Your task to perform on an android device: change the clock display to digital Image 0: 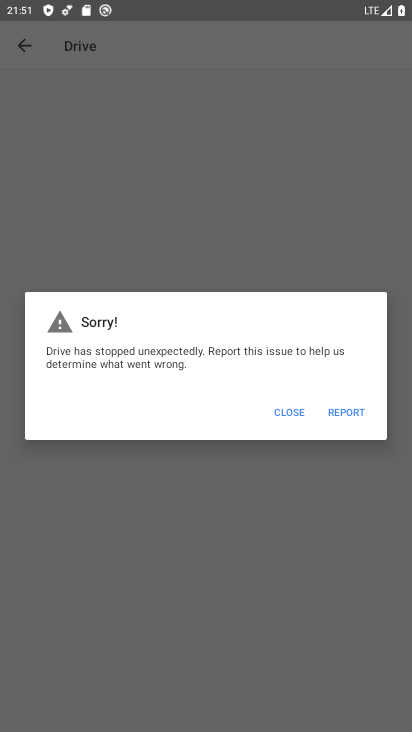
Step 0: press home button
Your task to perform on an android device: change the clock display to digital Image 1: 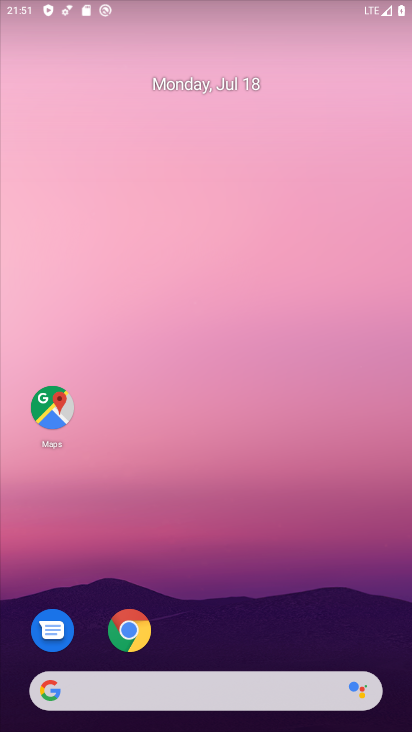
Step 1: drag from (313, 670) to (204, 196)
Your task to perform on an android device: change the clock display to digital Image 2: 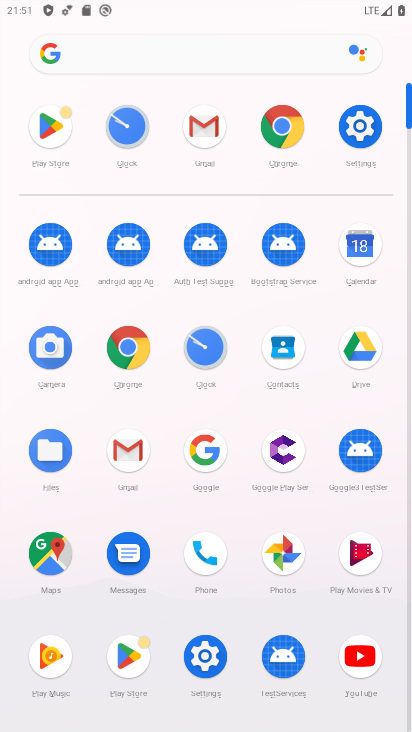
Step 2: click (213, 346)
Your task to perform on an android device: change the clock display to digital Image 3: 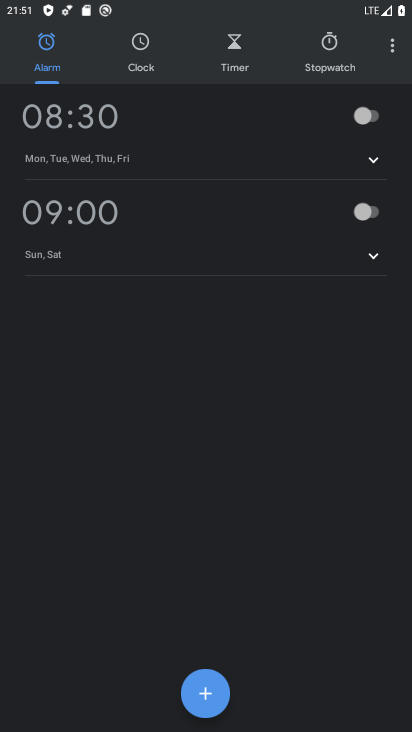
Step 3: click (398, 48)
Your task to perform on an android device: change the clock display to digital Image 4: 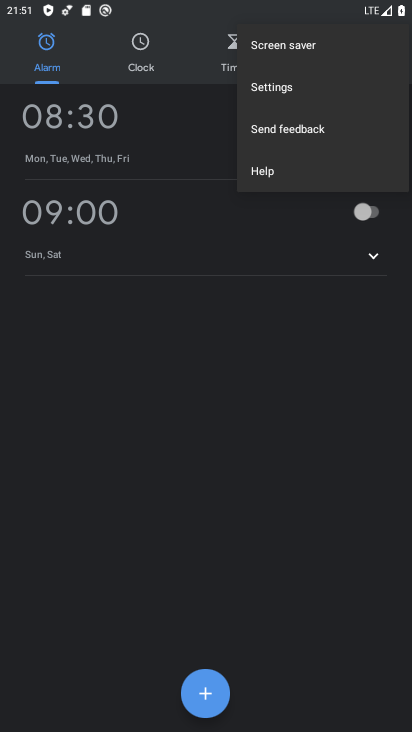
Step 4: click (273, 85)
Your task to perform on an android device: change the clock display to digital Image 5: 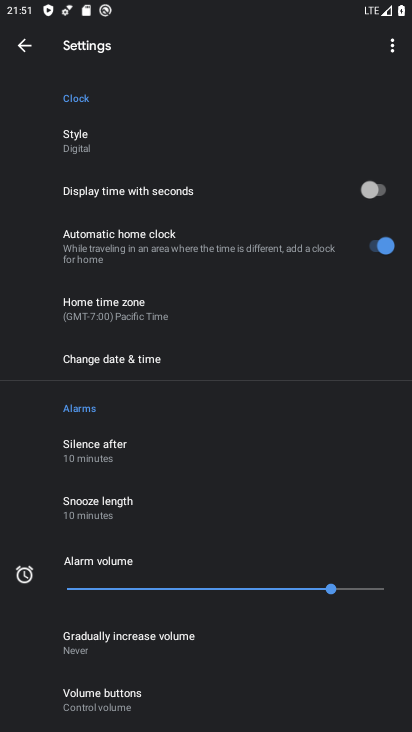
Step 5: task complete